Your task to perform on an android device: delete location history Image 0: 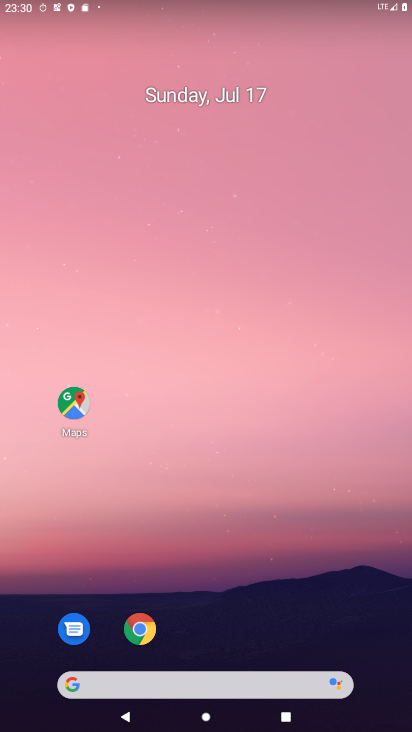
Step 0: drag from (238, 729) to (225, 144)
Your task to perform on an android device: delete location history Image 1: 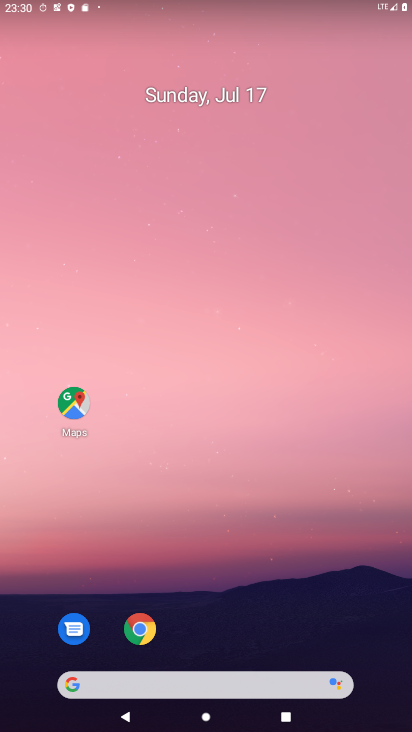
Step 1: drag from (240, 728) to (245, 92)
Your task to perform on an android device: delete location history Image 2: 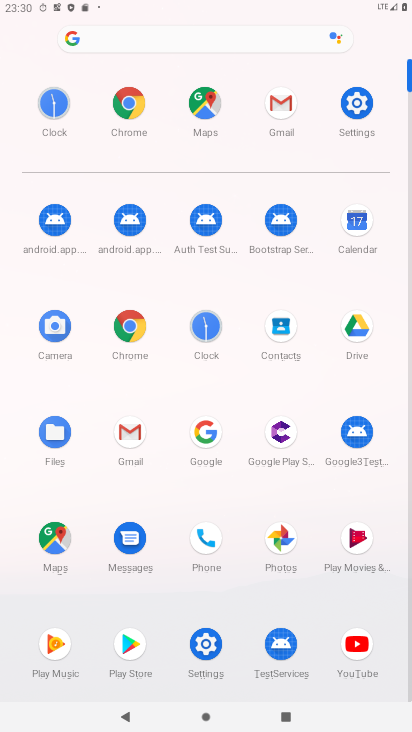
Step 2: click (54, 538)
Your task to perform on an android device: delete location history Image 3: 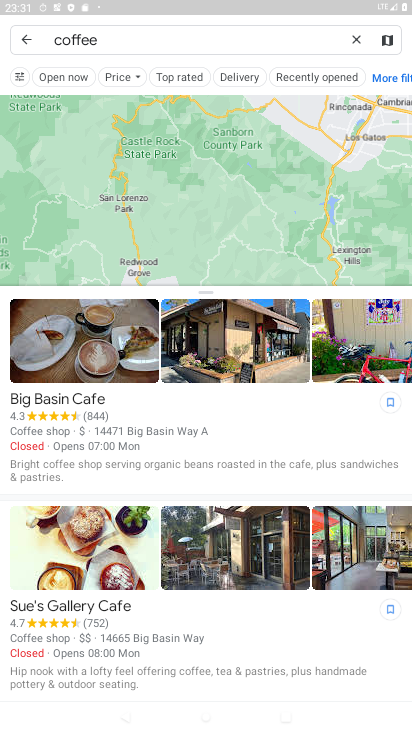
Step 3: click (28, 37)
Your task to perform on an android device: delete location history Image 4: 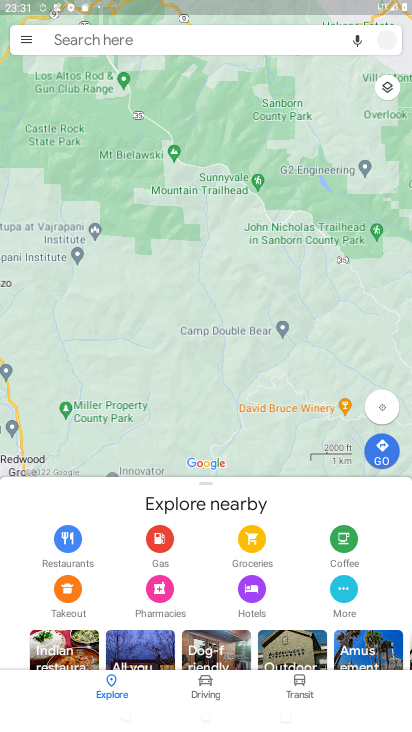
Step 4: click (22, 35)
Your task to perform on an android device: delete location history Image 5: 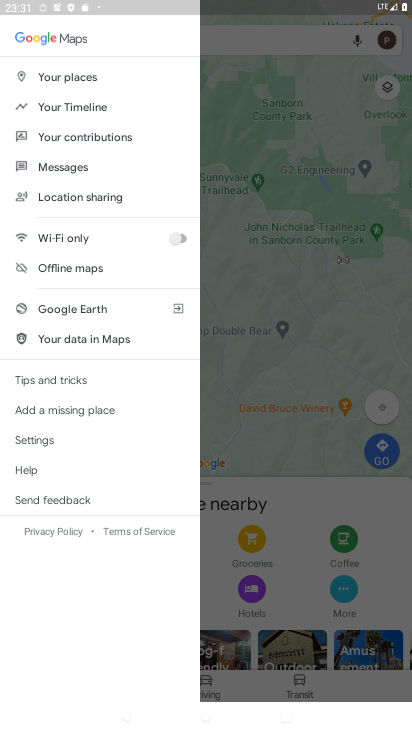
Step 5: click (68, 106)
Your task to perform on an android device: delete location history Image 6: 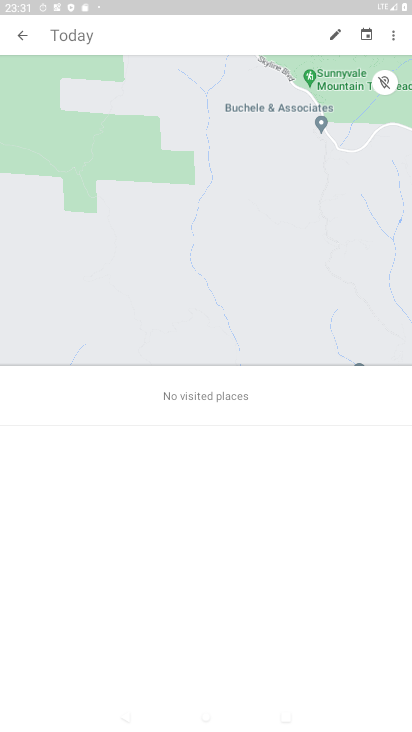
Step 6: click (393, 40)
Your task to perform on an android device: delete location history Image 7: 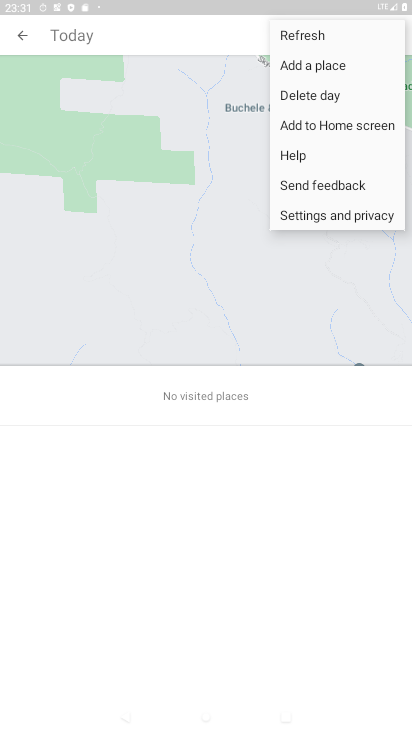
Step 7: click (315, 212)
Your task to perform on an android device: delete location history Image 8: 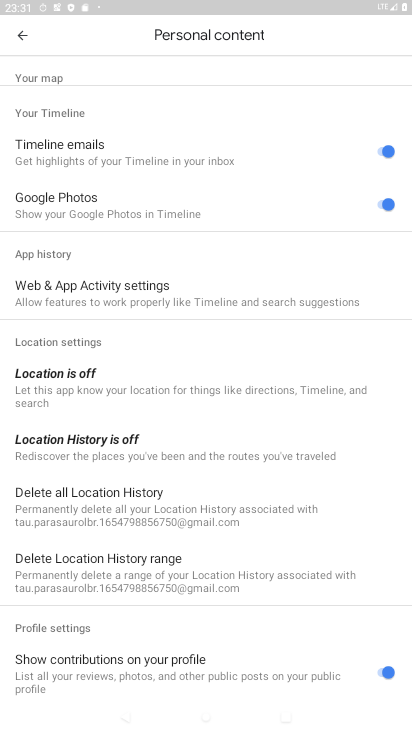
Step 8: click (99, 502)
Your task to perform on an android device: delete location history Image 9: 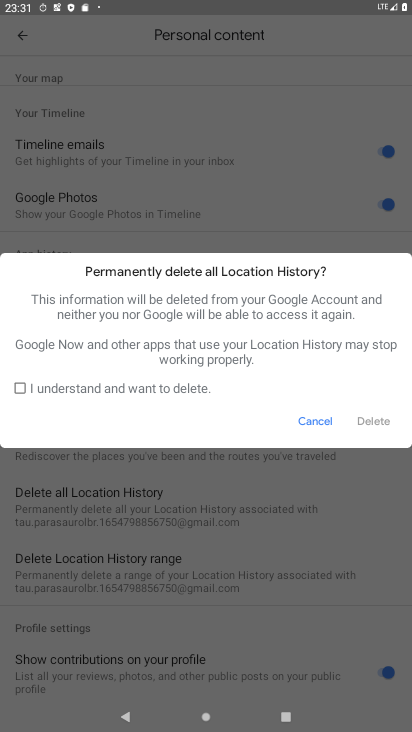
Step 9: click (19, 381)
Your task to perform on an android device: delete location history Image 10: 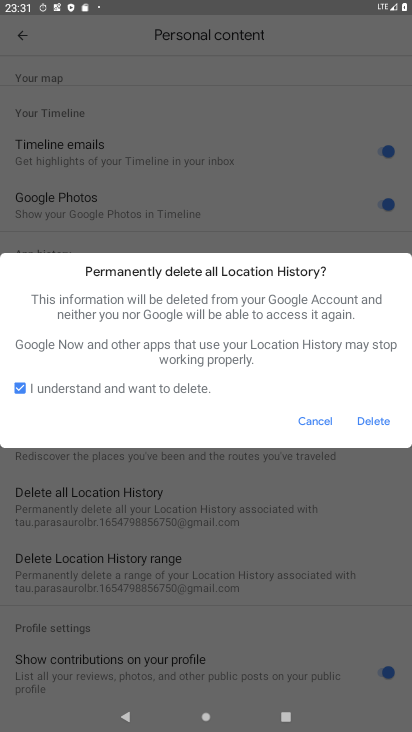
Step 10: click (373, 417)
Your task to perform on an android device: delete location history Image 11: 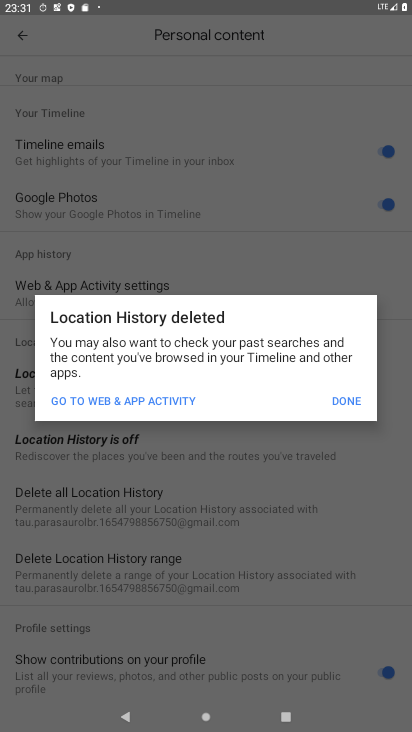
Step 11: click (344, 395)
Your task to perform on an android device: delete location history Image 12: 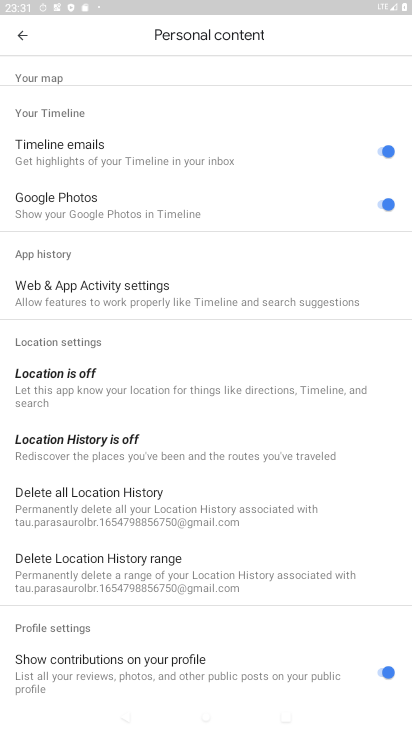
Step 12: task complete